Your task to perform on an android device: Open Google Chrome and open the bookmarks view Image 0: 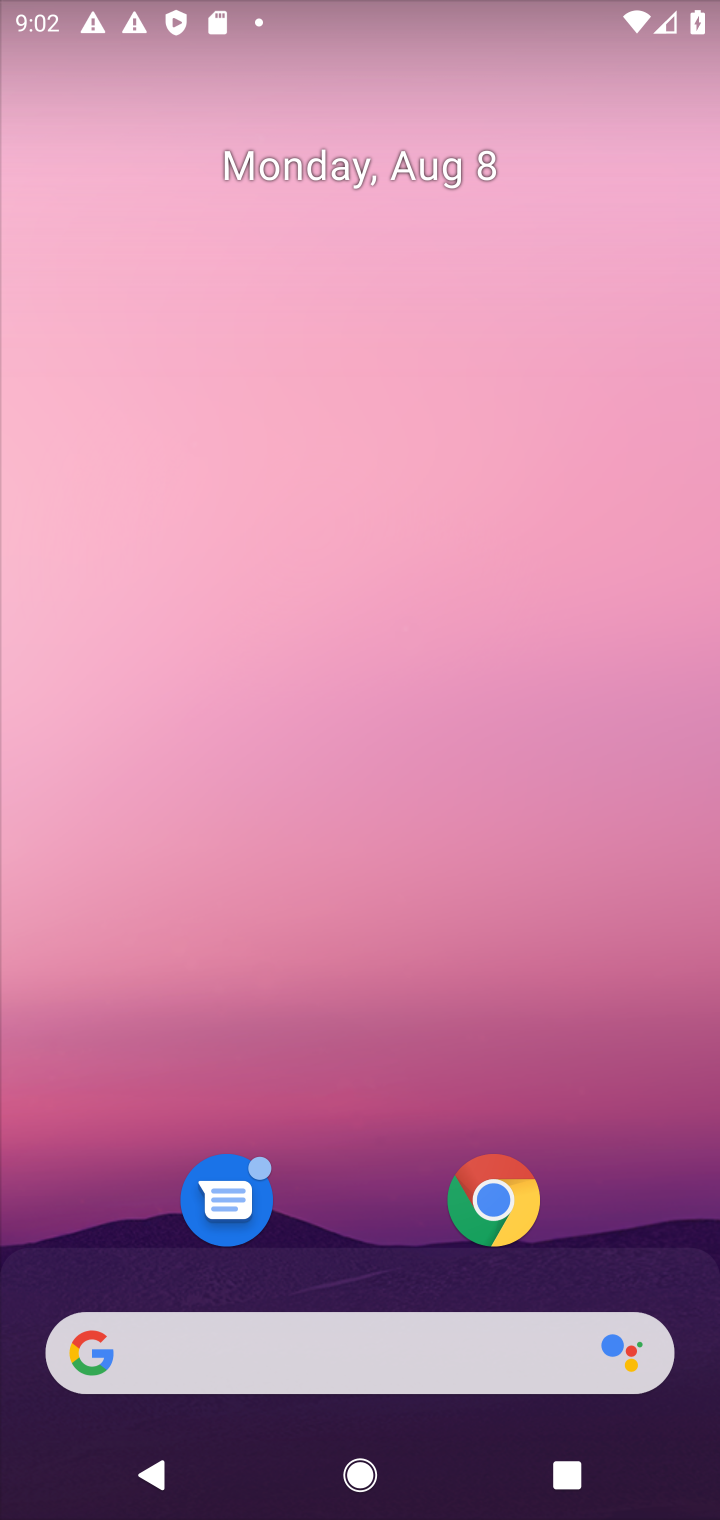
Step 0: click (488, 1201)
Your task to perform on an android device: Open Google Chrome and open the bookmarks view Image 1: 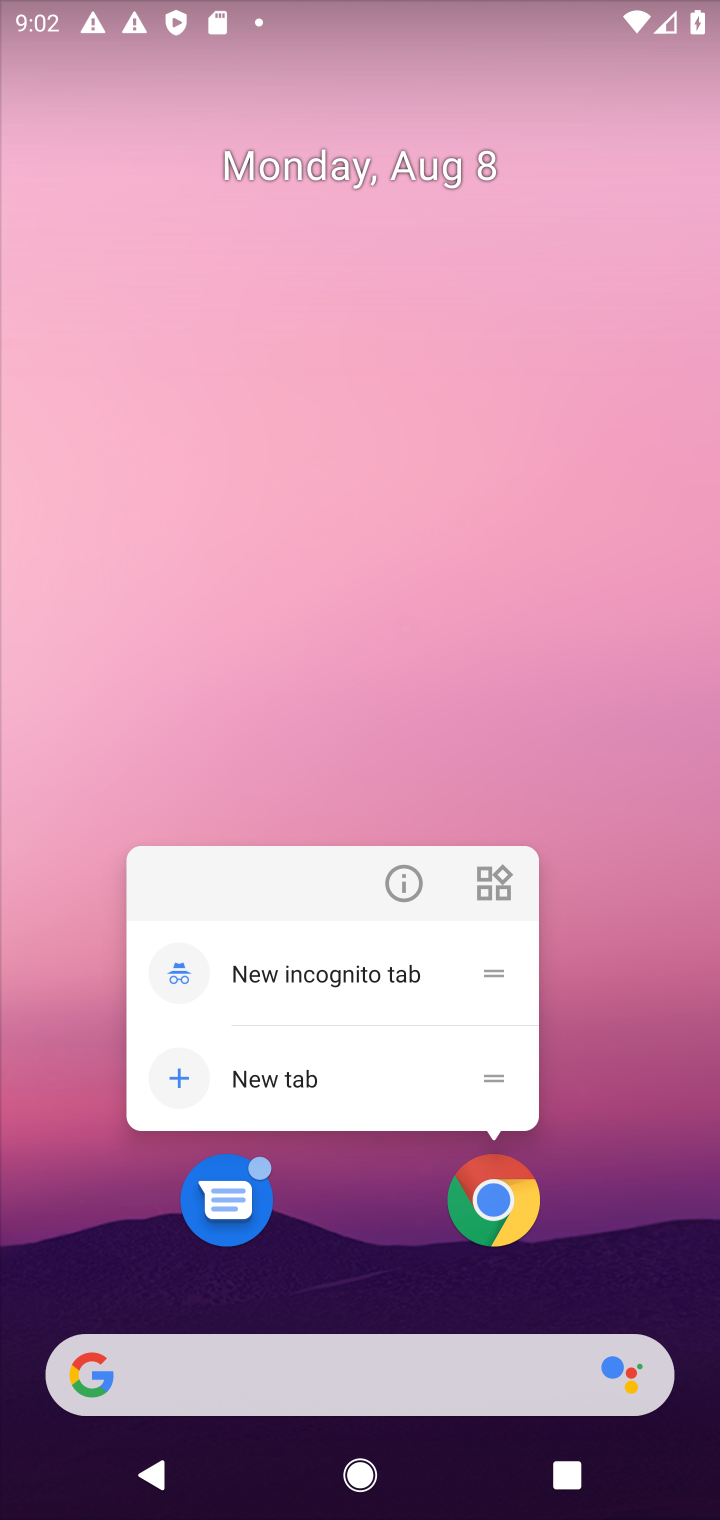
Step 1: click (488, 1213)
Your task to perform on an android device: Open Google Chrome and open the bookmarks view Image 2: 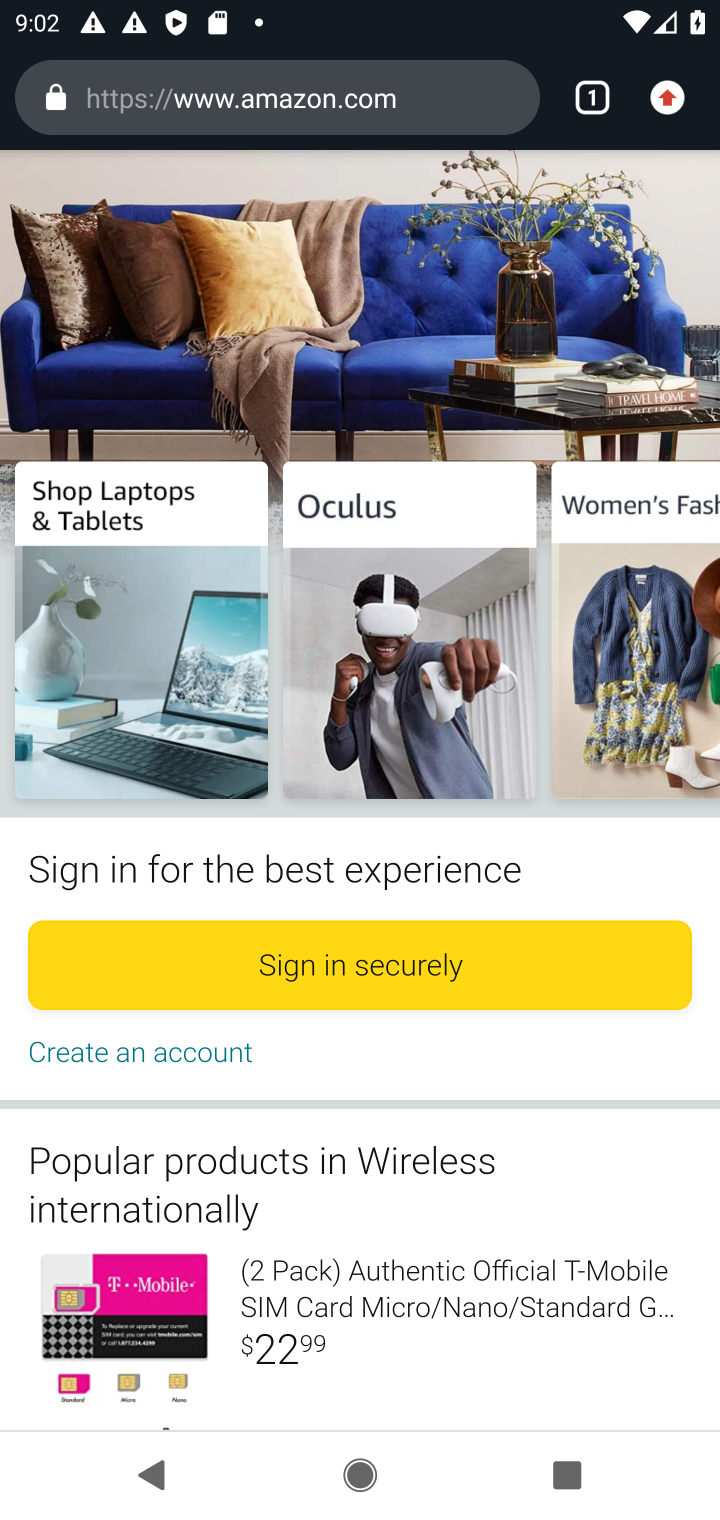
Step 2: drag from (663, 97) to (466, 466)
Your task to perform on an android device: Open Google Chrome and open the bookmarks view Image 3: 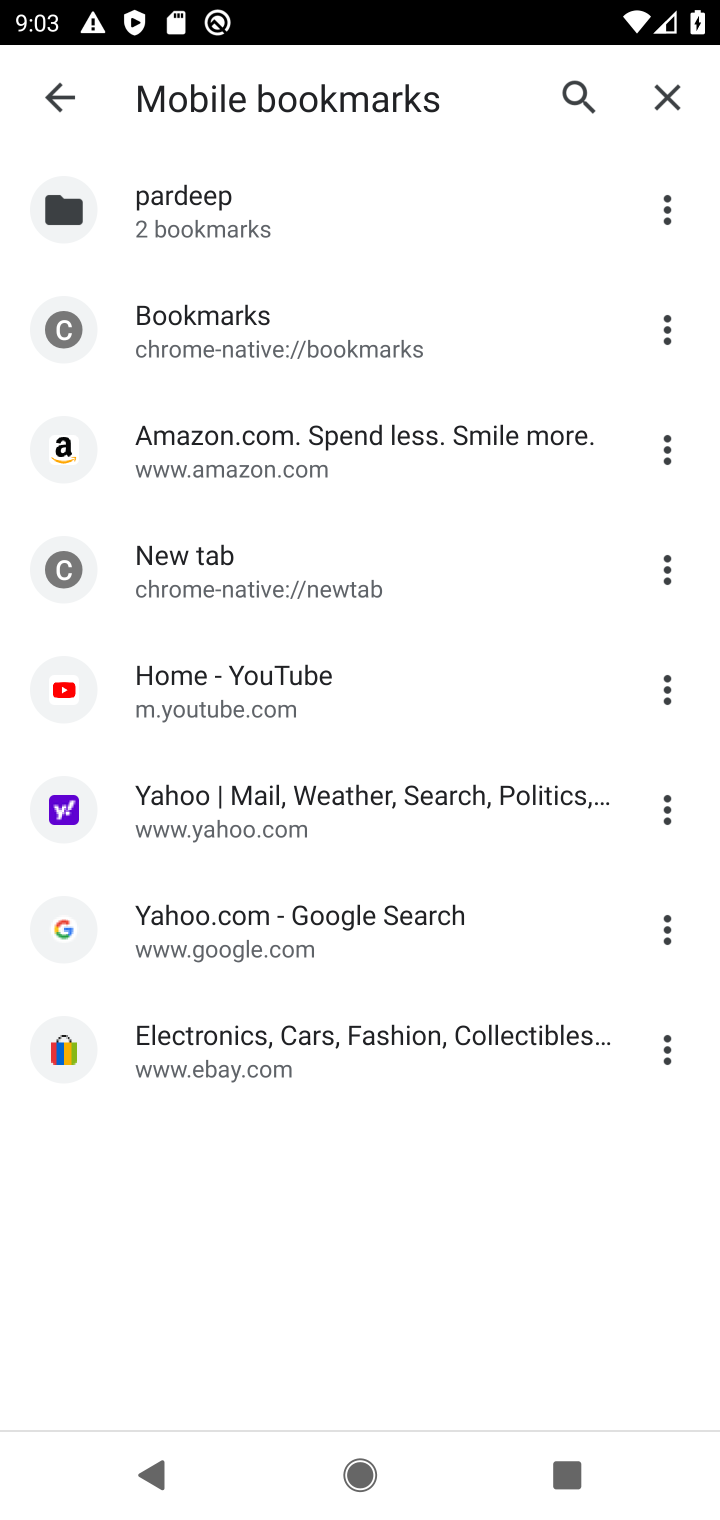
Step 3: click (271, 576)
Your task to perform on an android device: Open Google Chrome and open the bookmarks view Image 4: 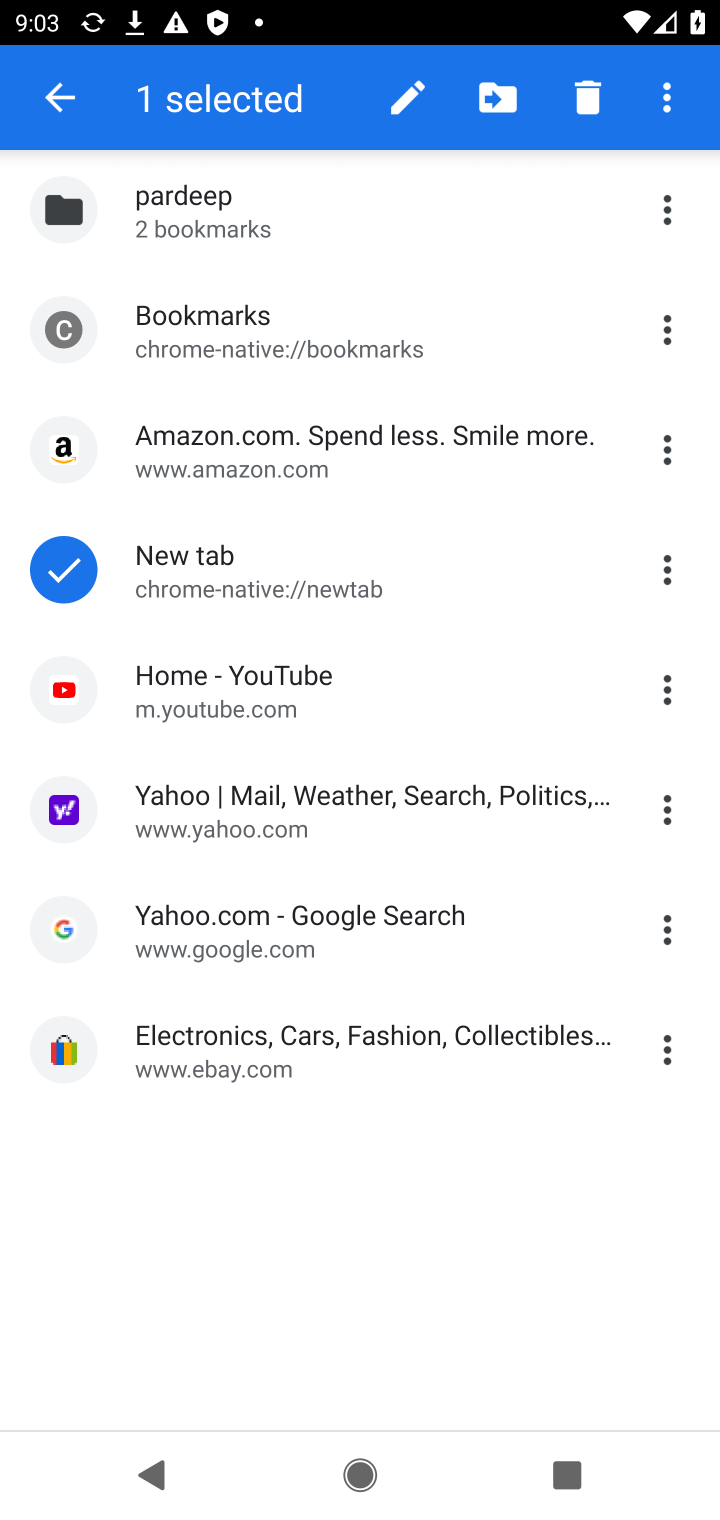
Step 4: click (214, 569)
Your task to perform on an android device: Open Google Chrome and open the bookmarks view Image 5: 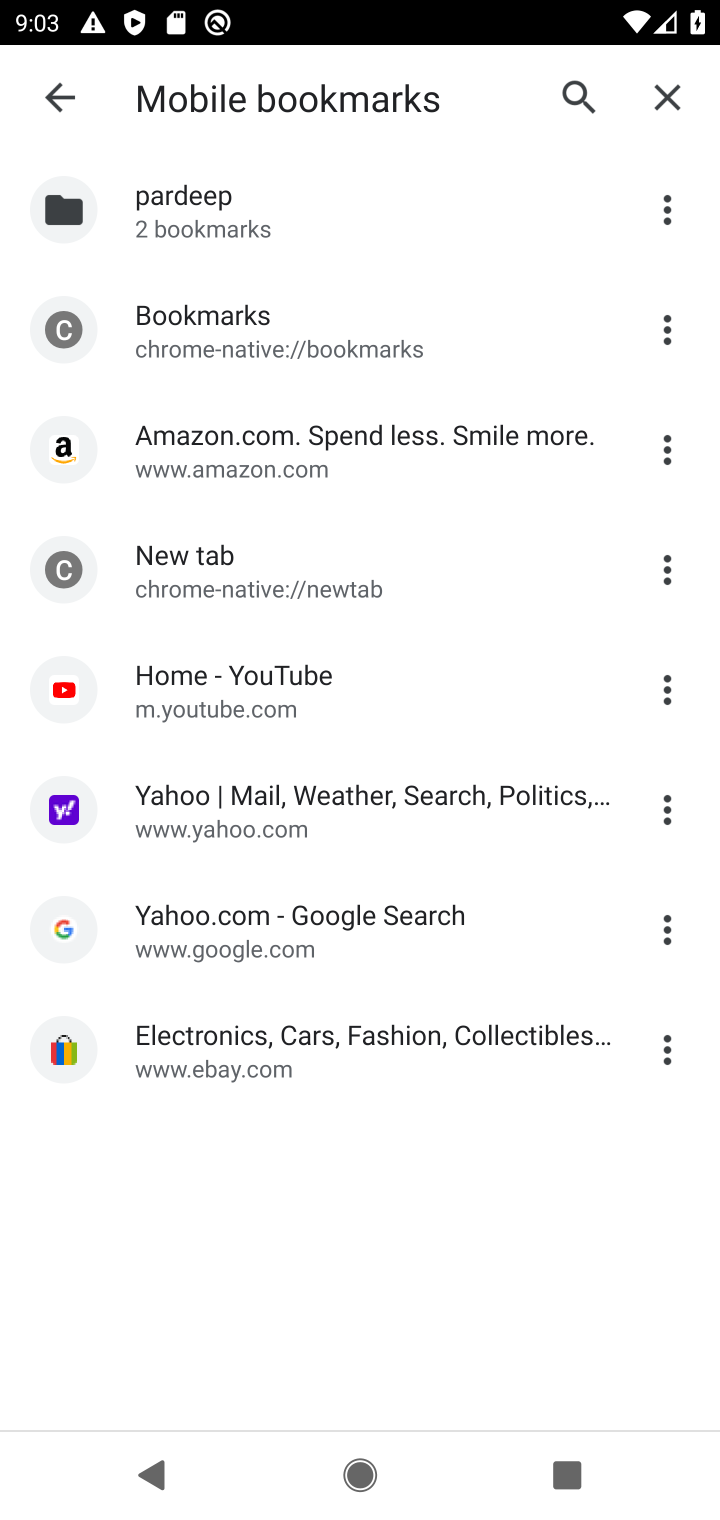
Step 5: click (325, 555)
Your task to perform on an android device: Open Google Chrome and open the bookmarks view Image 6: 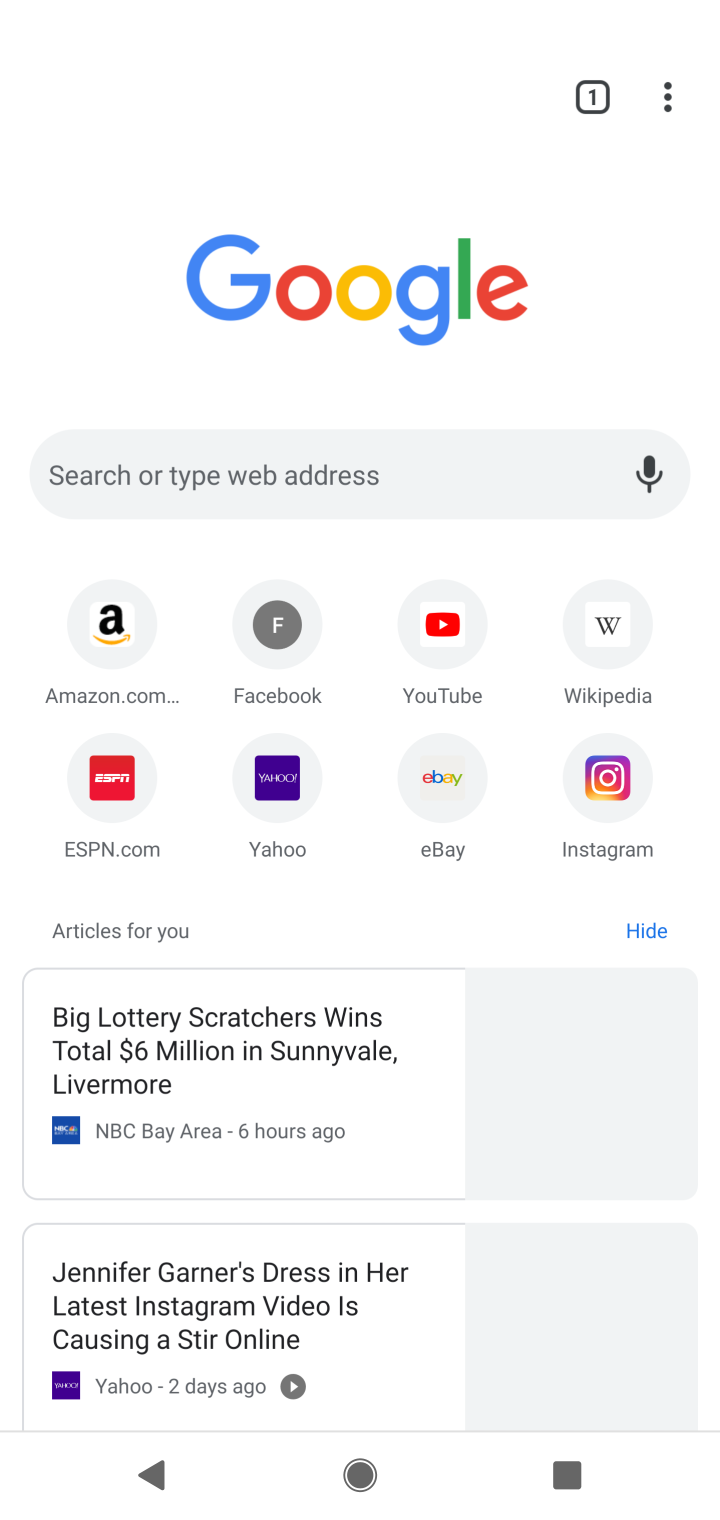
Step 6: click (163, 550)
Your task to perform on an android device: Open Google Chrome and open the bookmarks view Image 7: 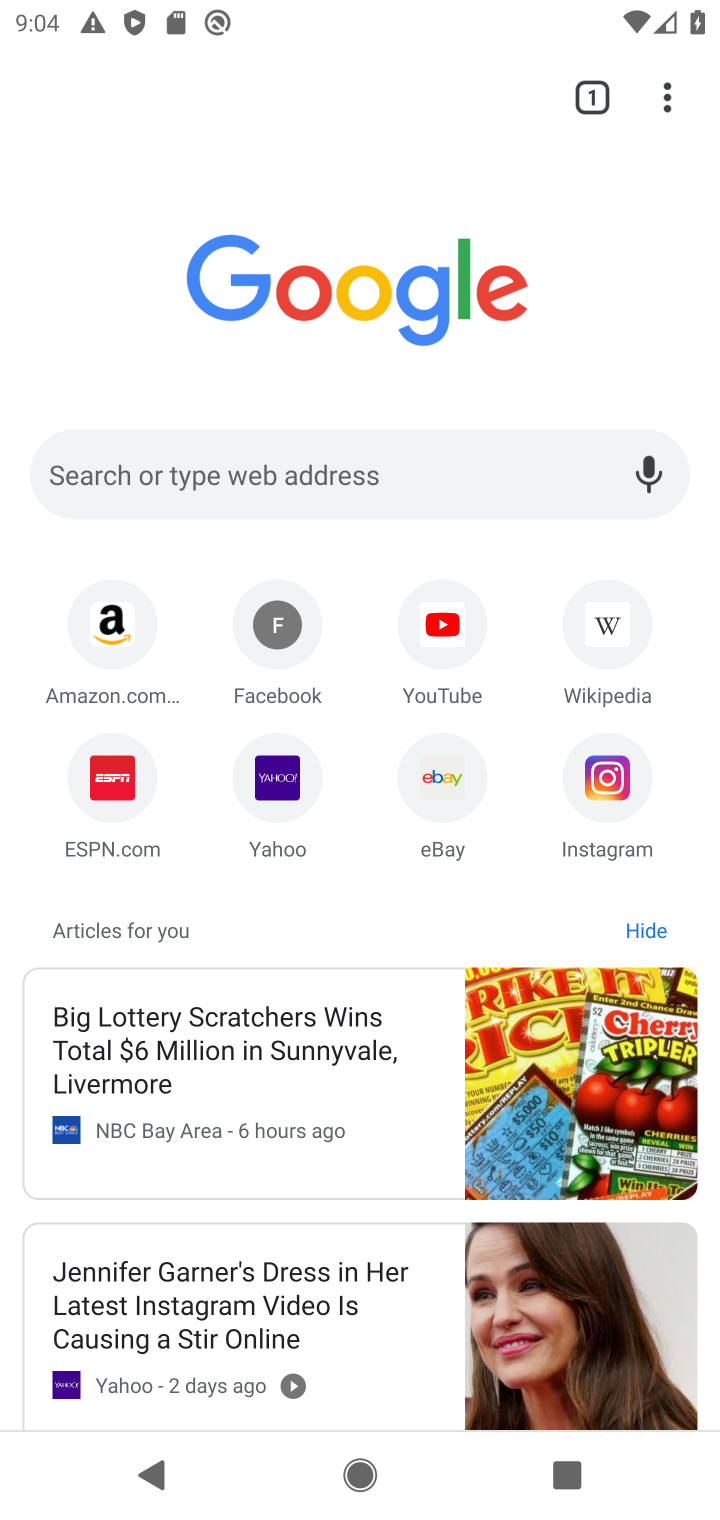
Step 7: task complete